Your task to perform on an android device: Open Youtube and go to the subscriptions tab Image 0: 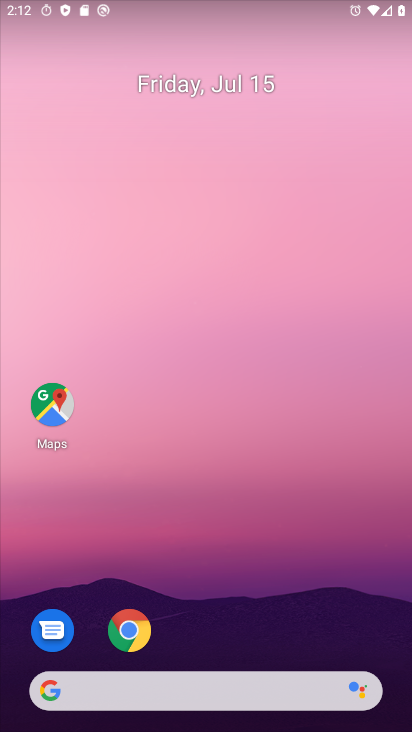
Step 0: drag from (235, 650) to (246, 173)
Your task to perform on an android device: Open Youtube and go to the subscriptions tab Image 1: 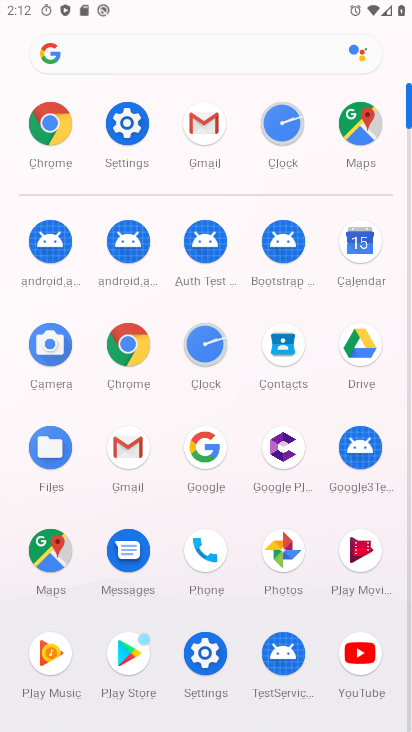
Step 1: click (350, 655)
Your task to perform on an android device: Open Youtube and go to the subscriptions tab Image 2: 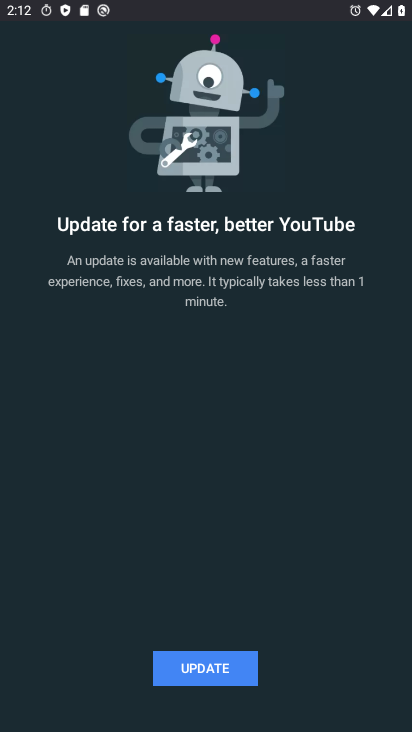
Step 2: click (194, 674)
Your task to perform on an android device: Open Youtube and go to the subscriptions tab Image 3: 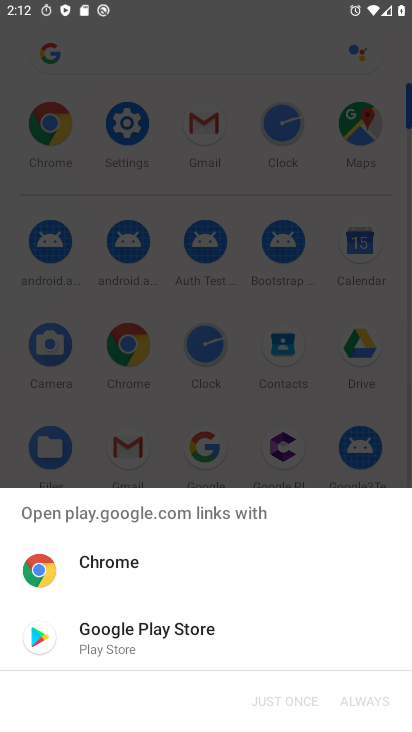
Step 3: click (138, 640)
Your task to perform on an android device: Open Youtube and go to the subscriptions tab Image 4: 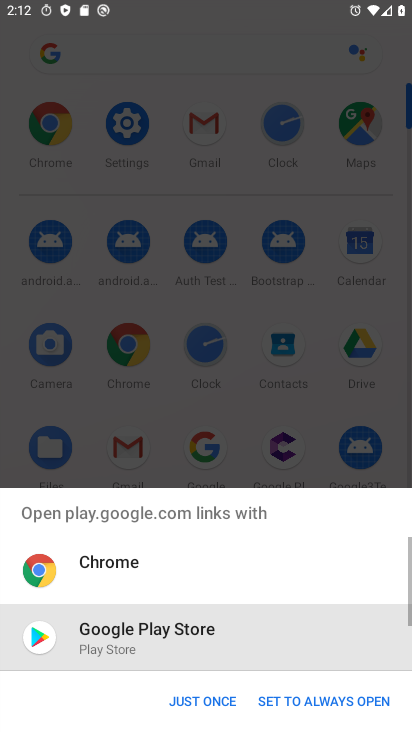
Step 4: click (210, 701)
Your task to perform on an android device: Open Youtube and go to the subscriptions tab Image 5: 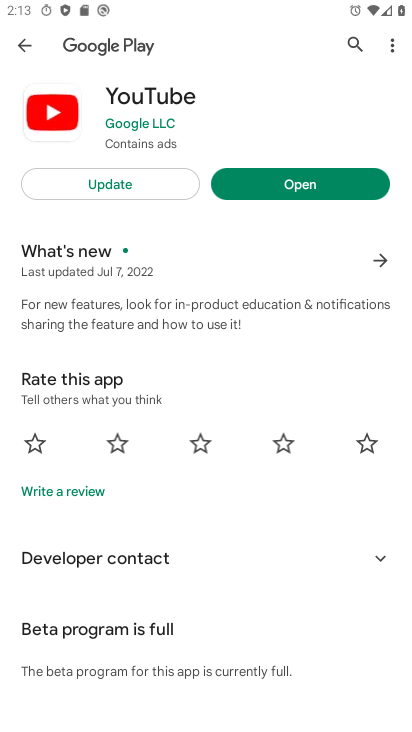
Step 5: click (308, 187)
Your task to perform on an android device: Open Youtube and go to the subscriptions tab Image 6: 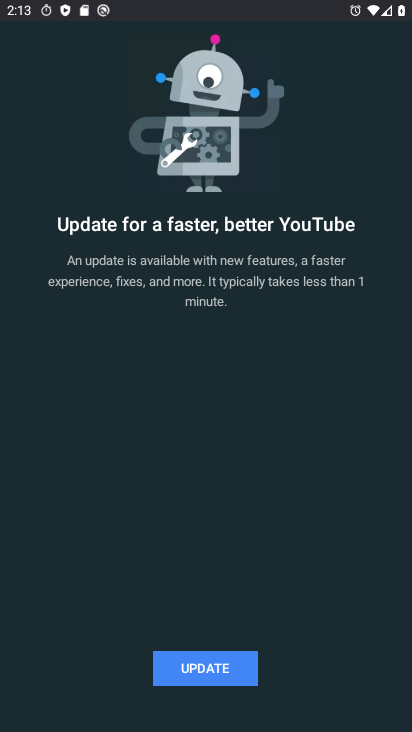
Step 6: click (249, 681)
Your task to perform on an android device: Open Youtube and go to the subscriptions tab Image 7: 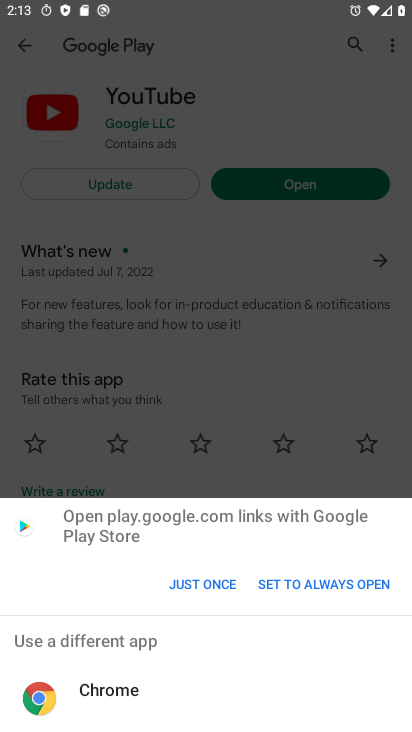
Step 7: drag from (174, 582) to (261, 582)
Your task to perform on an android device: Open Youtube and go to the subscriptions tab Image 8: 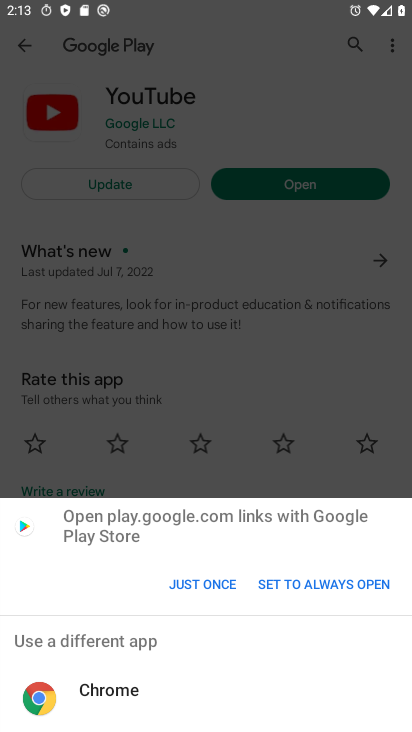
Step 8: click (221, 582)
Your task to perform on an android device: Open Youtube and go to the subscriptions tab Image 9: 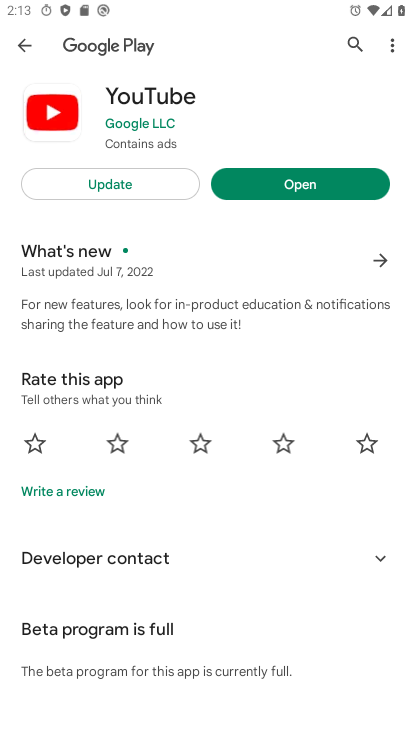
Step 9: click (138, 188)
Your task to perform on an android device: Open Youtube and go to the subscriptions tab Image 10: 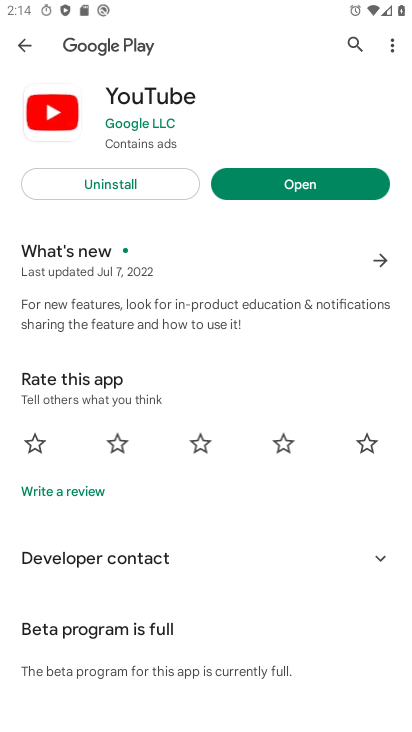
Step 10: click (331, 179)
Your task to perform on an android device: Open Youtube and go to the subscriptions tab Image 11: 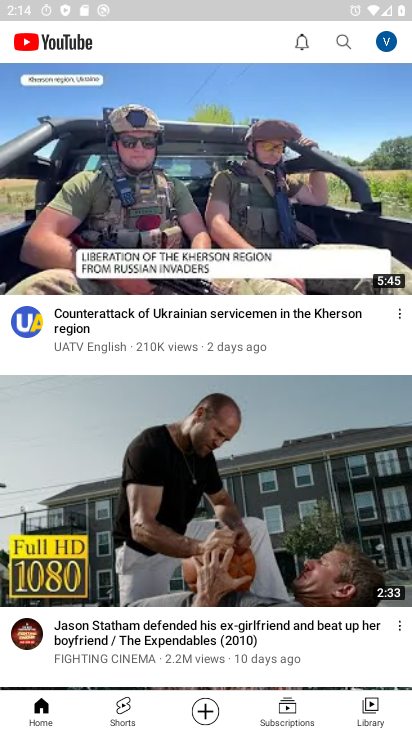
Step 11: click (279, 709)
Your task to perform on an android device: Open Youtube and go to the subscriptions tab Image 12: 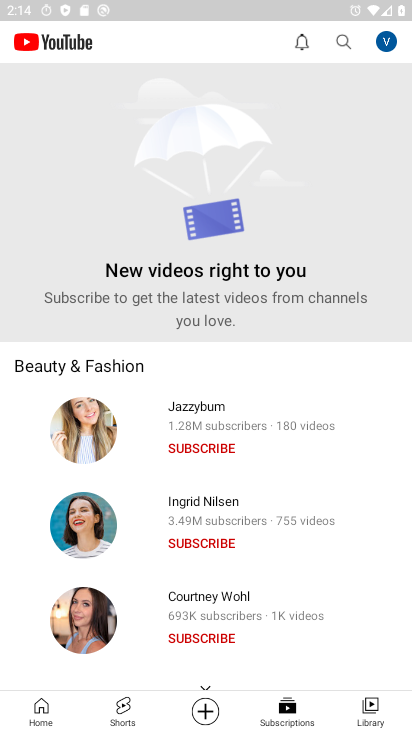
Step 12: task complete